Your task to perform on an android device: Open calendar and show me the first week of next month Image 0: 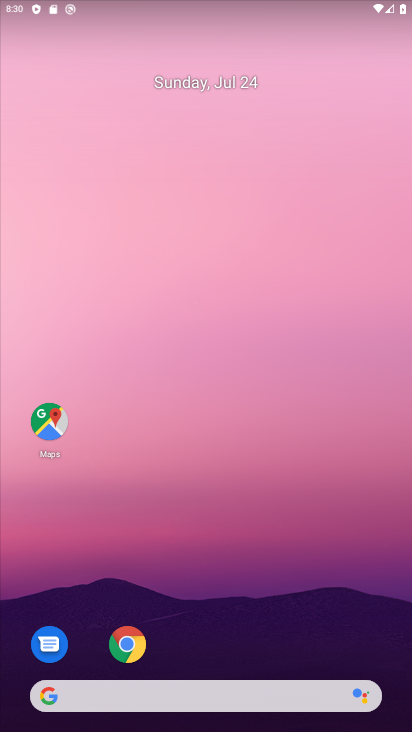
Step 0: drag from (221, 409) to (221, 213)
Your task to perform on an android device: Open calendar and show me the first week of next month Image 1: 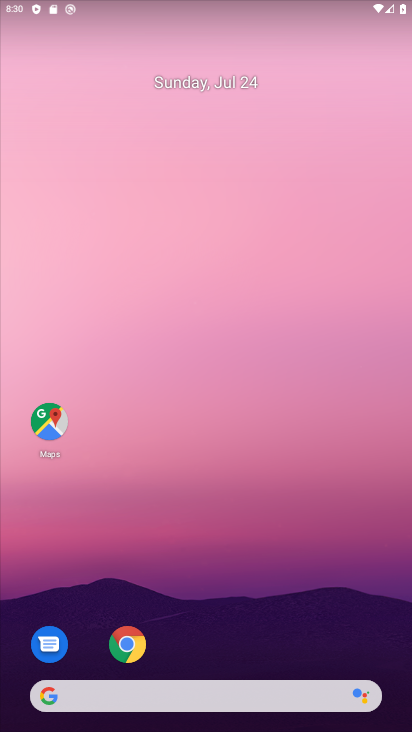
Step 1: drag from (202, 670) to (259, 194)
Your task to perform on an android device: Open calendar and show me the first week of next month Image 2: 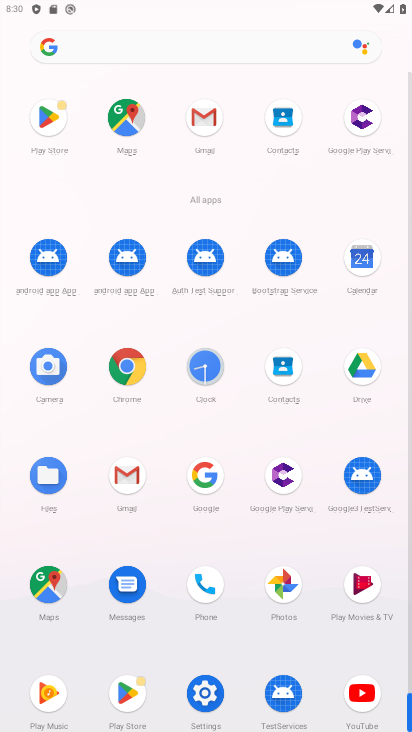
Step 2: click (362, 250)
Your task to perform on an android device: Open calendar and show me the first week of next month Image 3: 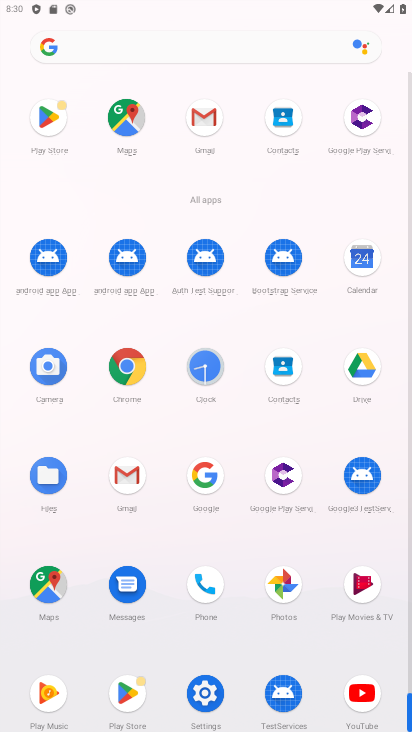
Step 3: click (367, 258)
Your task to perform on an android device: Open calendar and show me the first week of next month Image 4: 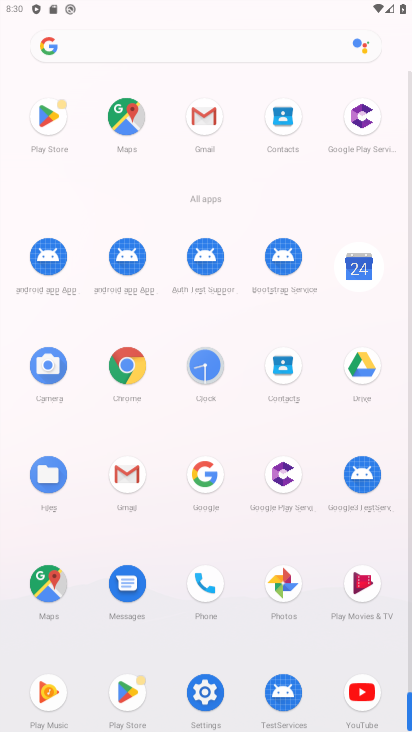
Step 4: click (367, 258)
Your task to perform on an android device: Open calendar and show me the first week of next month Image 5: 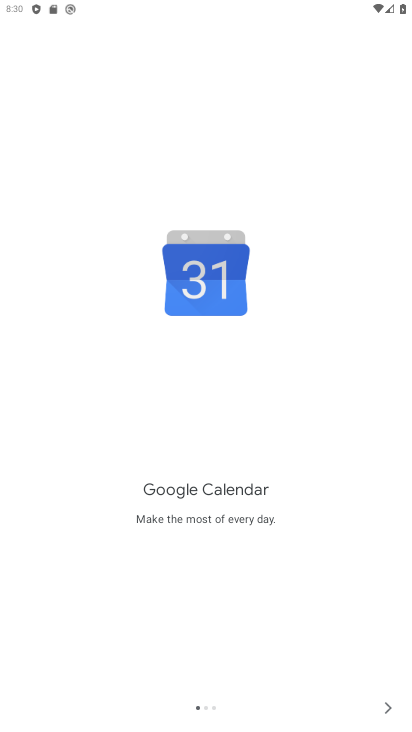
Step 5: click (385, 709)
Your task to perform on an android device: Open calendar and show me the first week of next month Image 6: 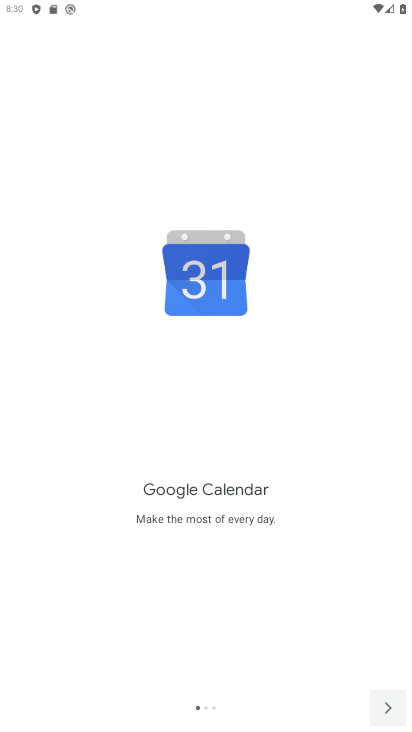
Step 6: click (386, 710)
Your task to perform on an android device: Open calendar and show me the first week of next month Image 7: 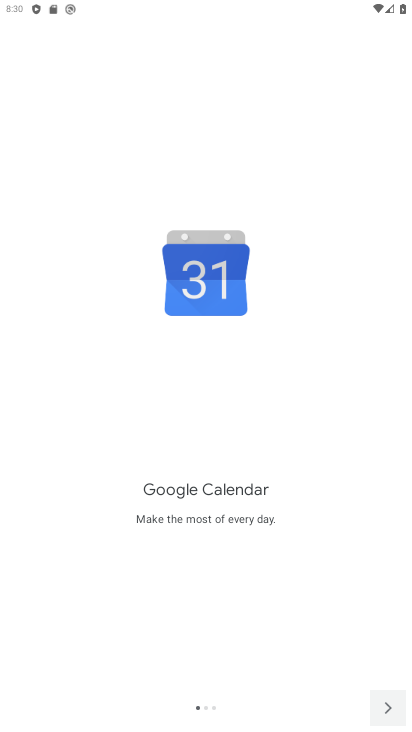
Step 7: click (386, 710)
Your task to perform on an android device: Open calendar and show me the first week of next month Image 8: 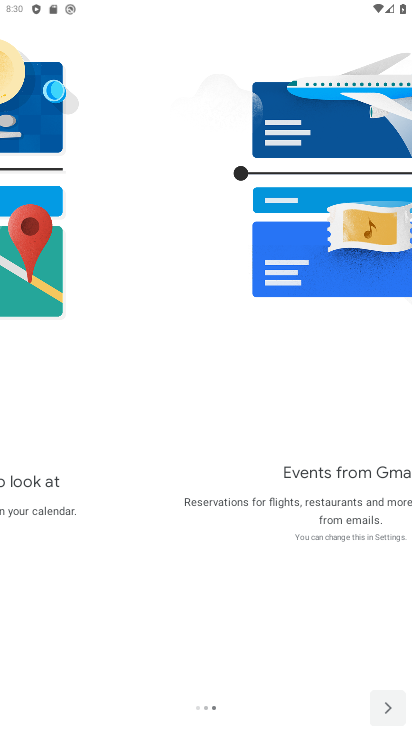
Step 8: click (386, 710)
Your task to perform on an android device: Open calendar and show me the first week of next month Image 9: 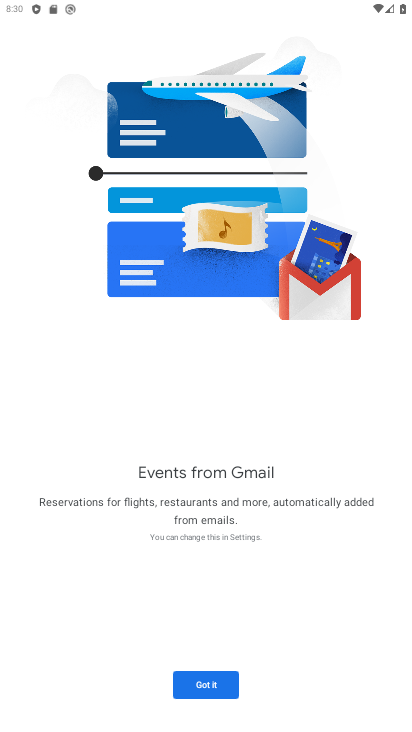
Step 9: click (386, 706)
Your task to perform on an android device: Open calendar and show me the first week of next month Image 10: 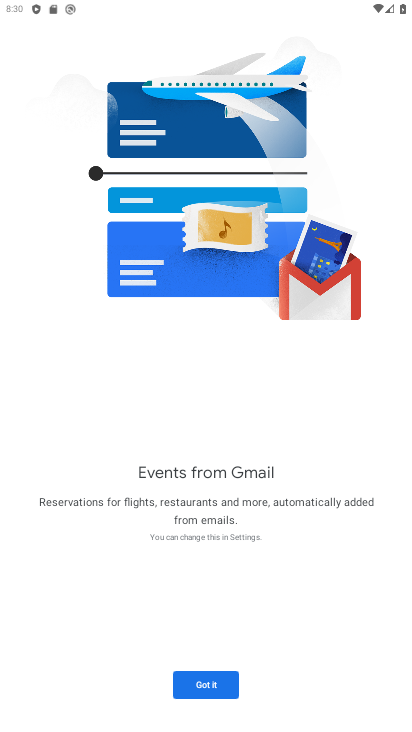
Step 10: click (388, 707)
Your task to perform on an android device: Open calendar and show me the first week of next month Image 11: 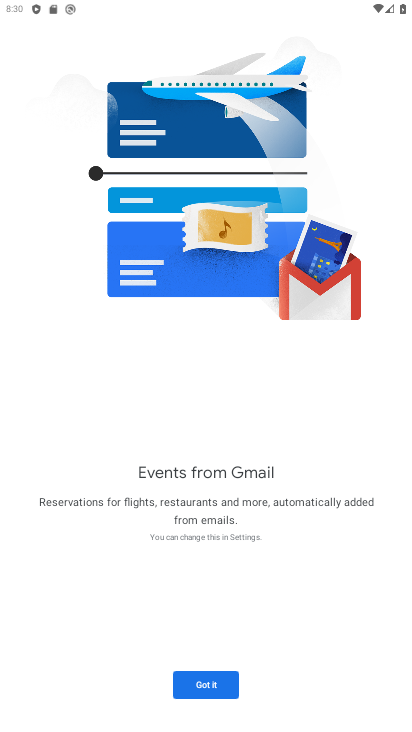
Step 11: click (388, 707)
Your task to perform on an android device: Open calendar and show me the first week of next month Image 12: 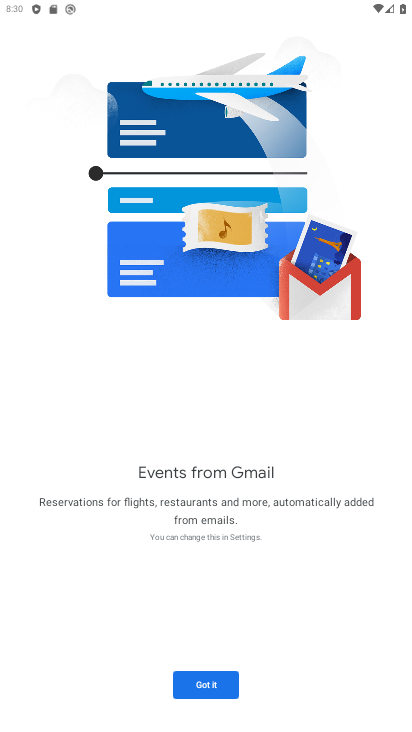
Step 12: click (207, 682)
Your task to perform on an android device: Open calendar and show me the first week of next month Image 13: 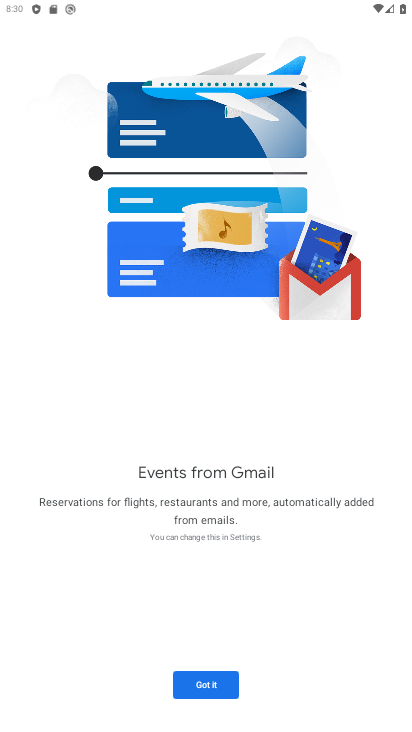
Step 13: click (204, 679)
Your task to perform on an android device: Open calendar and show me the first week of next month Image 14: 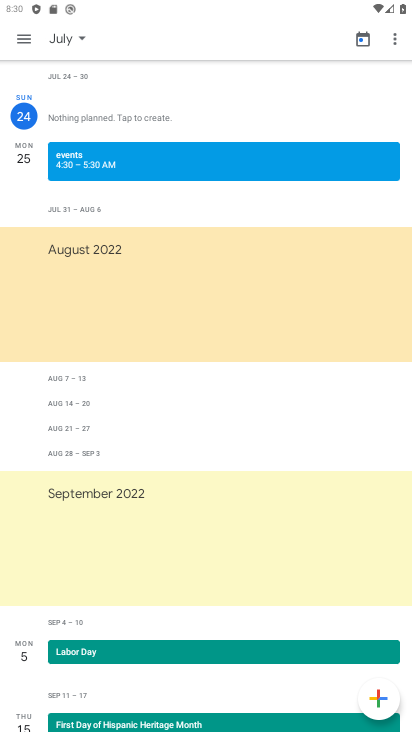
Step 14: click (77, 44)
Your task to perform on an android device: Open calendar and show me the first week of next month Image 15: 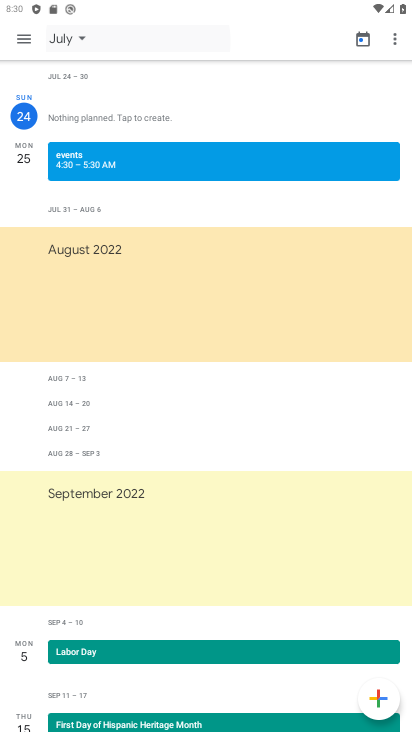
Step 15: click (77, 44)
Your task to perform on an android device: Open calendar and show me the first week of next month Image 16: 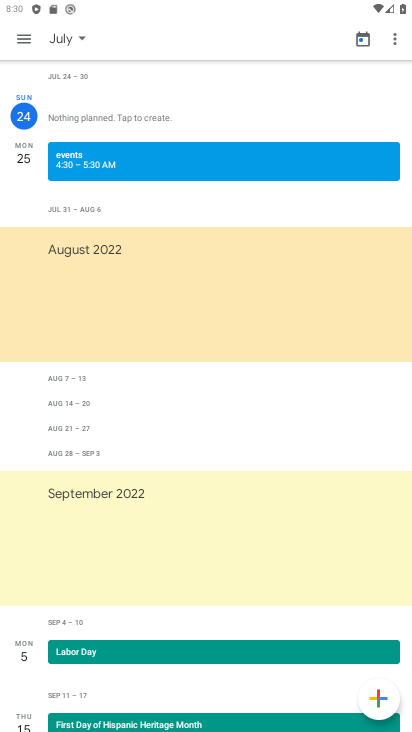
Step 16: click (80, 34)
Your task to perform on an android device: Open calendar and show me the first week of next month Image 17: 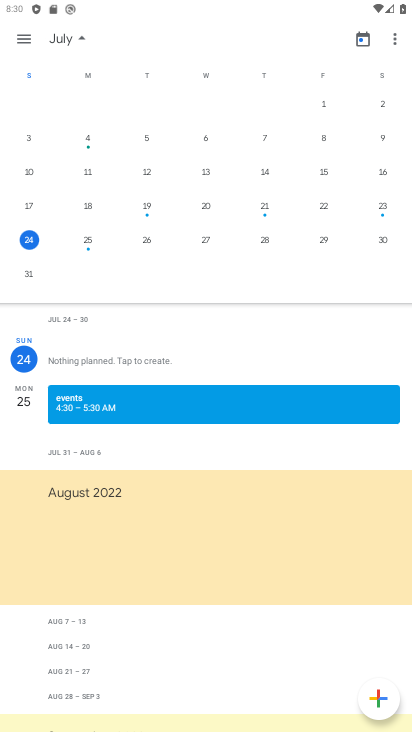
Step 17: drag from (327, 155) to (16, 170)
Your task to perform on an android device: Open calendar and show me the first week of next month Image 18: 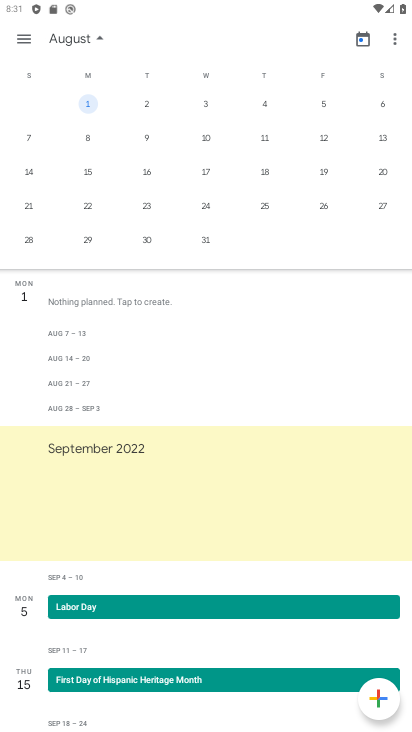
Step 18: click (144, 94)
Your task to perform on an android device: Open calendar and show me the first week of next month Image 19: 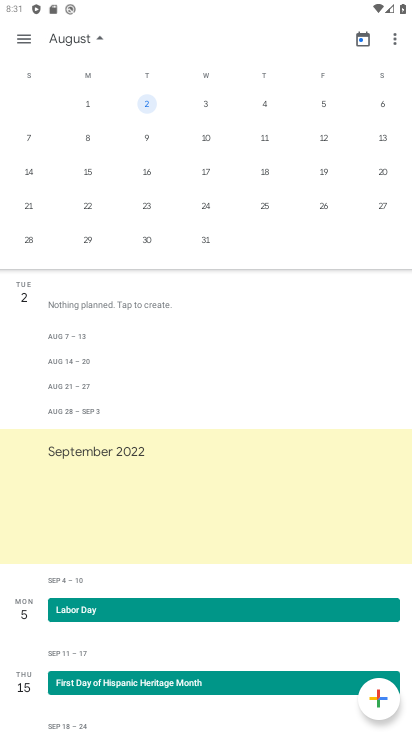
Step 19: click (146, 97)
Your task to perform on an android device: Open calendar and show me the first week of next month Image 20: 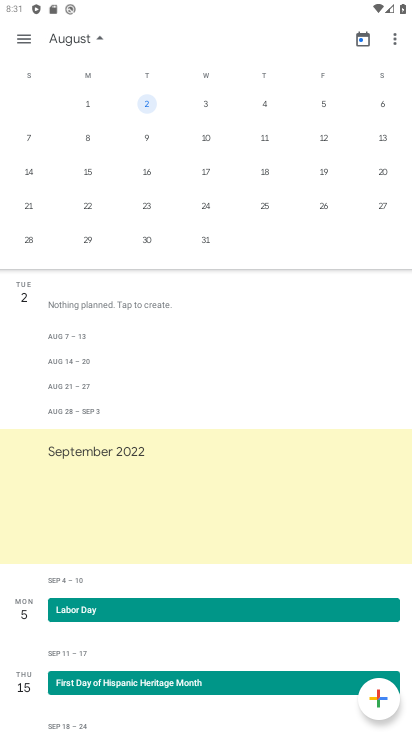
Step 20: click (146, 97)
Your task to perform on an android device: Open calendar and show me the first week of next month Image 21: 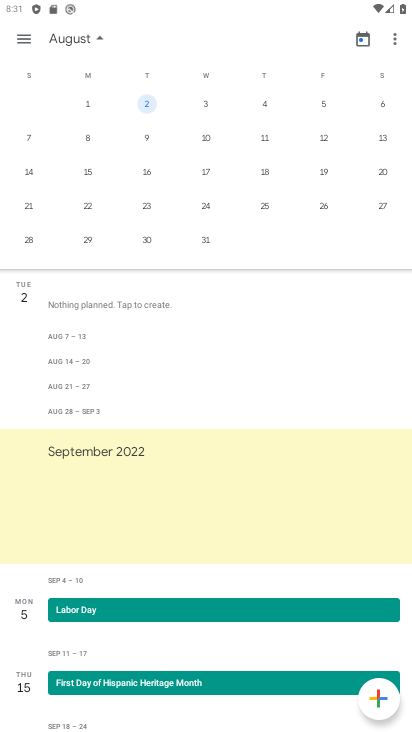
Step 21: task complete